Your task to perform on an android device: Turn on the flashlight Image 0: 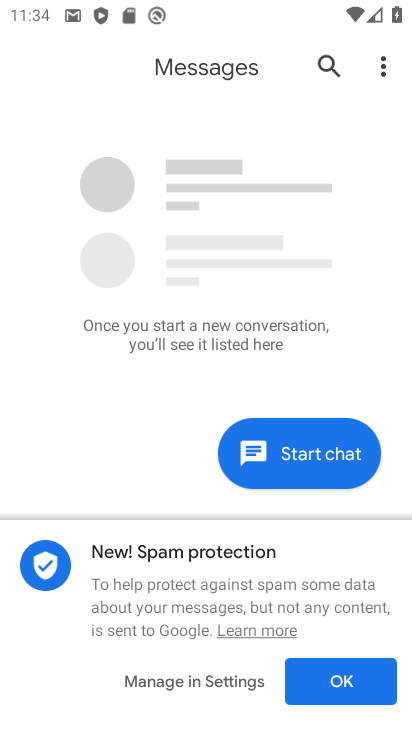
Step 0: press home button
Your task to perform on an android device: Turn on the flashlight Image 1: 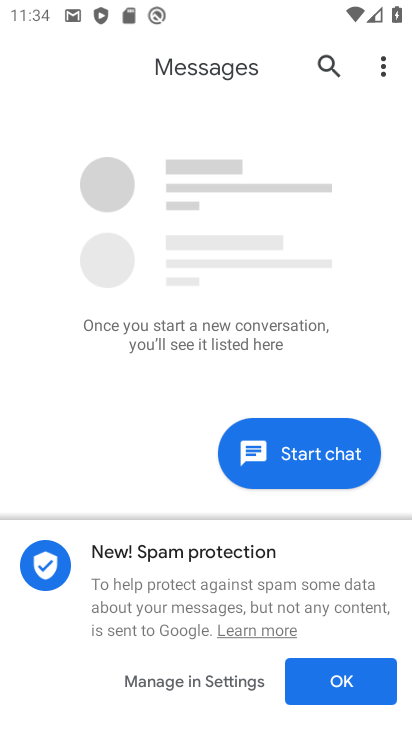
Step 1: press home button
Your task to perform on an android device: Turn on the flashlight Image 2: 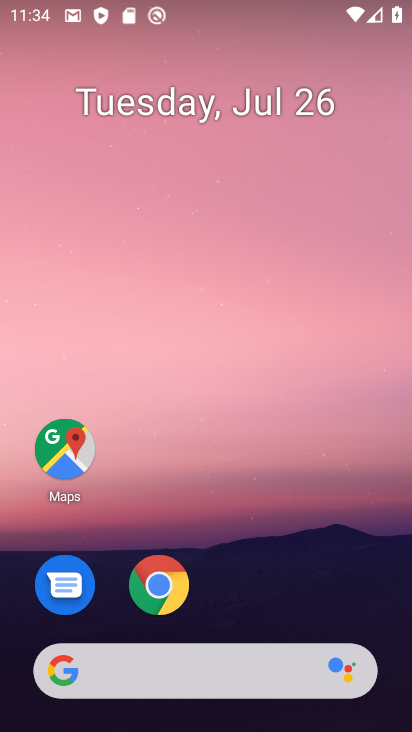
Step 2: drag from (236, 595) to (258, 21)
Your task to perform on an android device: Turn on the flashlight Image 3: 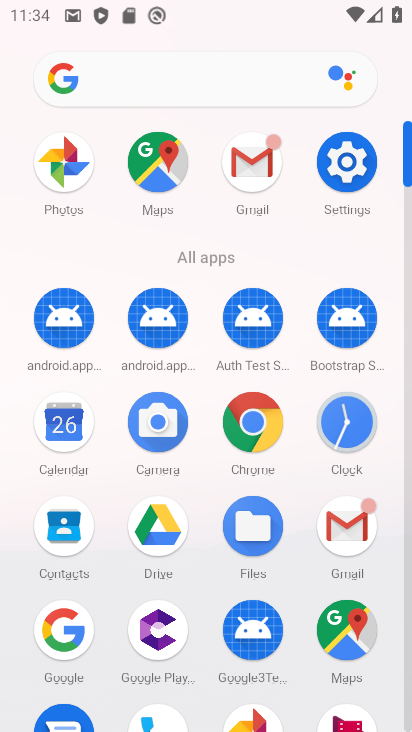
Step 3: click (346, 154)
Your task to perform on an android device: Turn on the flashlight Image 4: 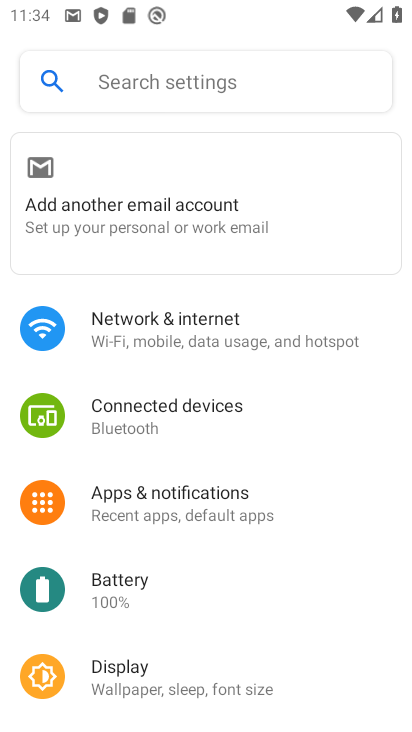
Step 4: press home button
Your task to perform on an android device: Turn on the flashlight Image 5: 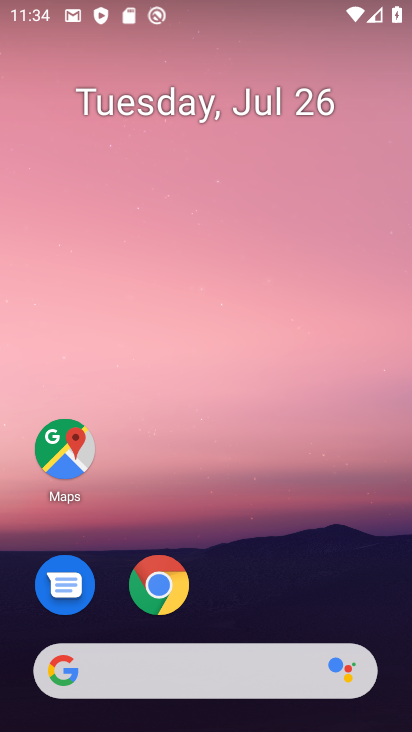
Step 5: click (156, 581)
Your task to perform on an android device: Turn on the flashlight Image 6: 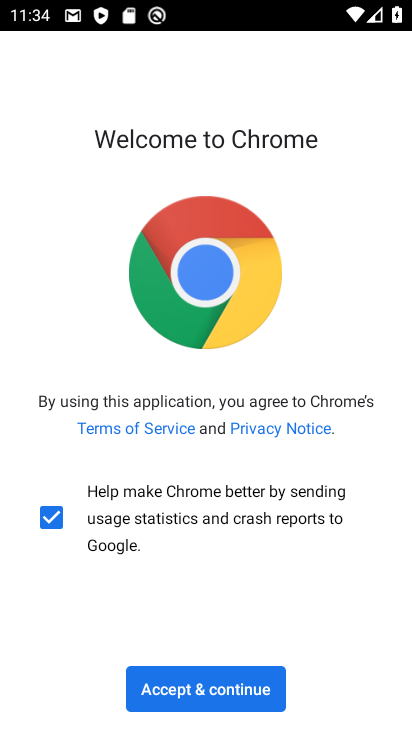
Step 6: click (206, 693)
Your task to perform on an android device: Turn on the flashlight Image 7: 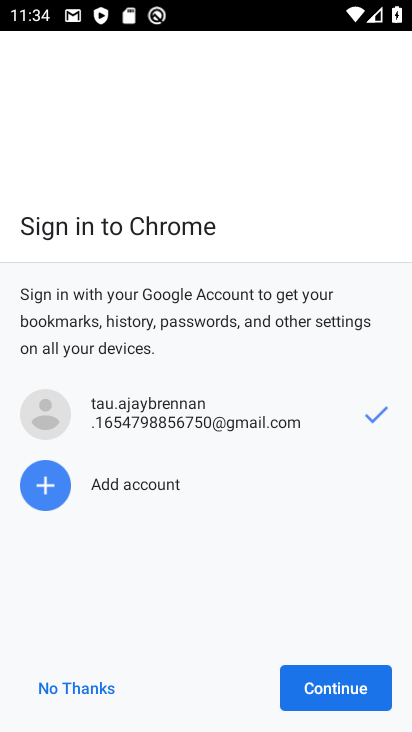
Step 7: click (318, 697)
Your task to perform on an android device: Turn on the flashlight Image 8: 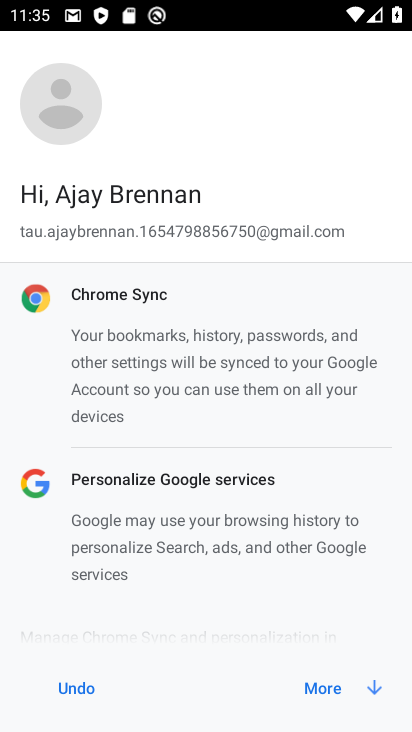
Step 8: click (323, 686)
Your task to perform on an android device: Turn on the flashlight Image 9: 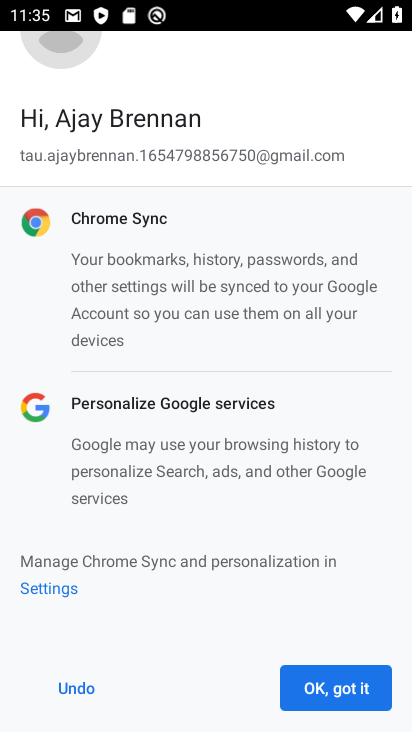
Step 9: click (323, 687)
Your task to perform on an android device: Turn on the flashlight Image 10: 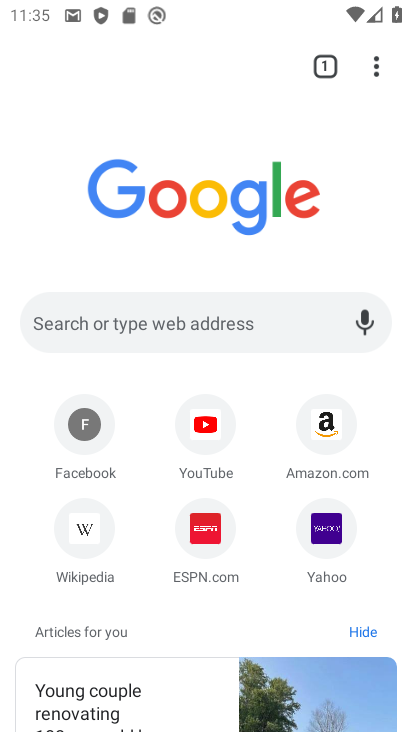
Step 10: press home button
Your task to perform on an android device: Turn on the flashlight Image 11: 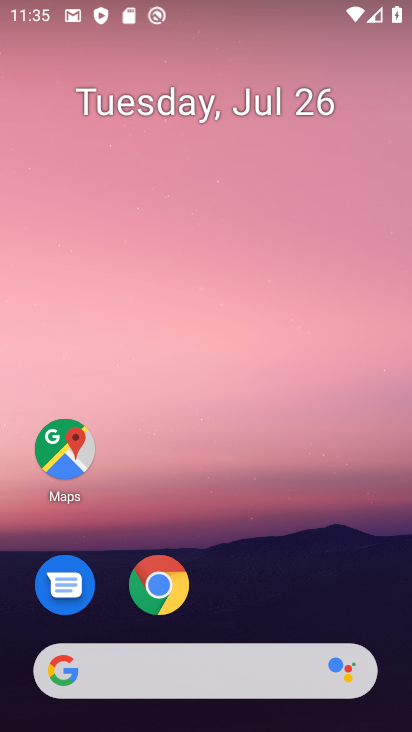
Step 11: drag from (255, 567) to (309, 14)
Your task to perform on an android device: Turn on the flashlight Image 12: 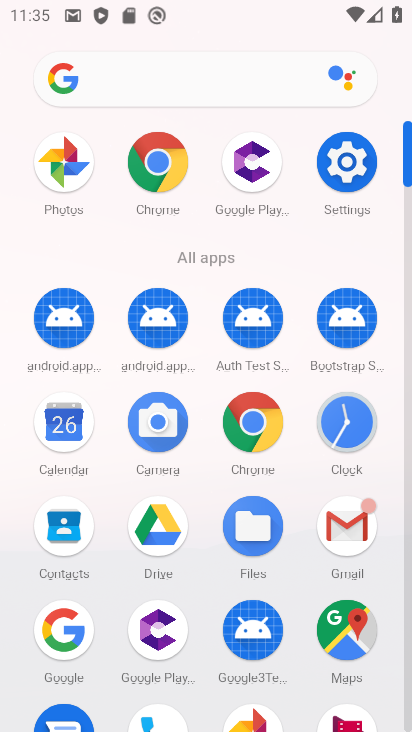
Step 12: click (58, 167)
Your task to perform on an android device: Turn on the flashlight Image 13: 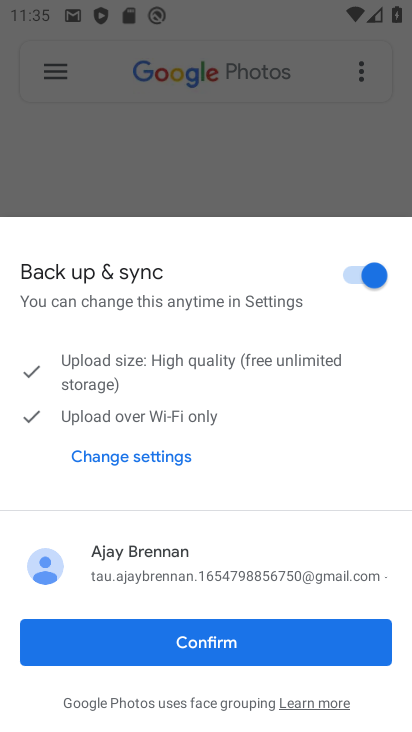
Step 13: click (248, 657)
Your task to perform on an android device: Turn on the flashlight Image 14: 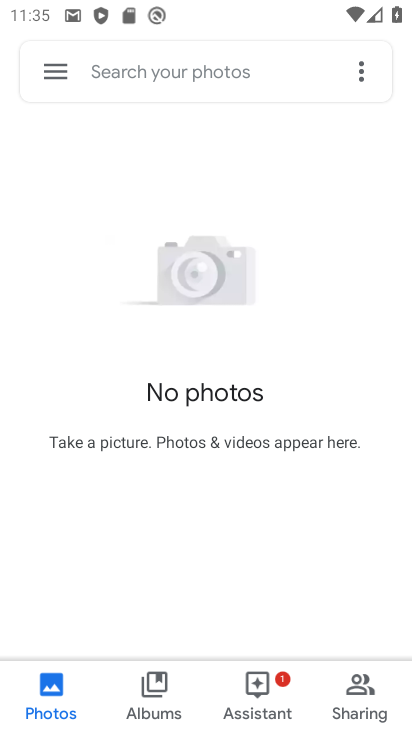
Step 14: press home button
Your task to perform on an android device: Turn on the flashlight Image 15: 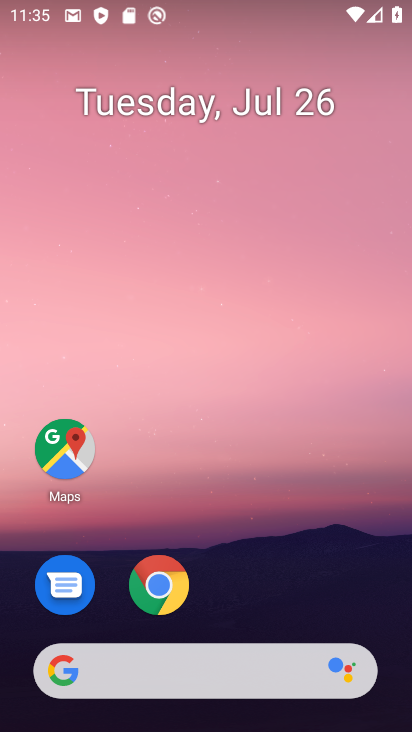
Step 15: drag from (337, 556) to (358, 95)
Your task to perform on an android device: Turn on the flashlight Image 16: 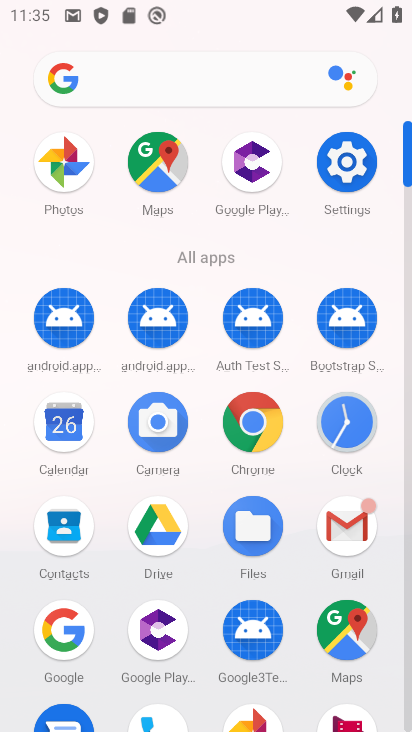
Step 16: click (343, 525)
Your task to perform on an android device: Turn on the flashlight Image 17: 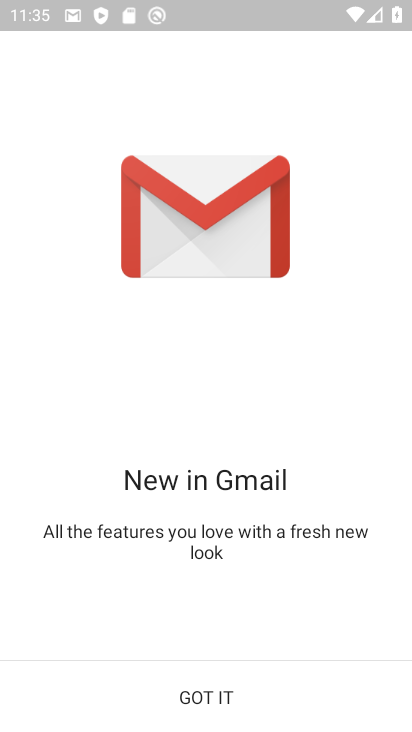
Step 17: click (230, 685)
Your task to perform on an android device: Turn on the flashlight Image 18: 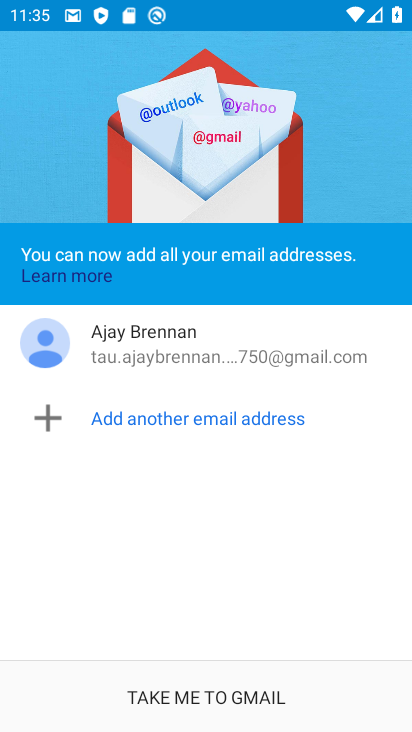
Step 18: click (231, 699)
Your task to perform on an android device: Turn on the flashlight Image 19: 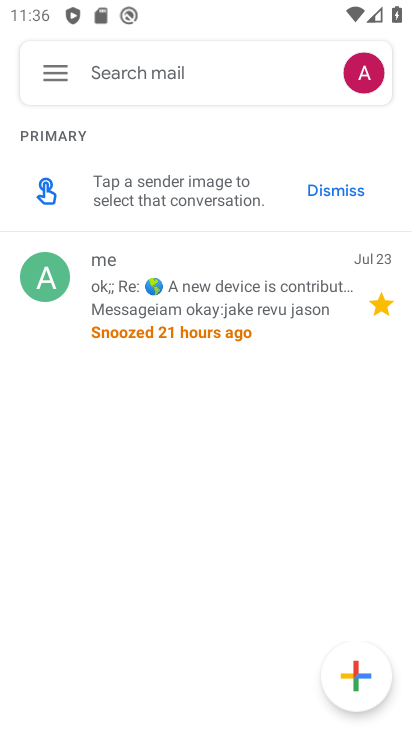
Step 19: press home button
Your task to perform on an android device: Turn on the flashlight Image 20: 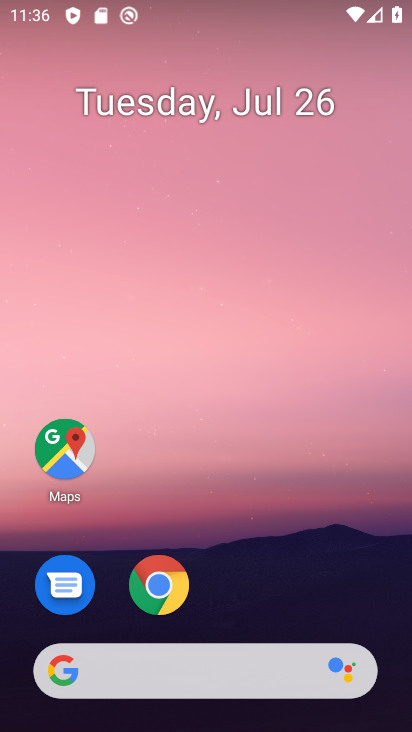
Step 20: drag from (260, 578) to (334, 73)
Your task to perform on an android device: Turn on the flashlight Image 21: 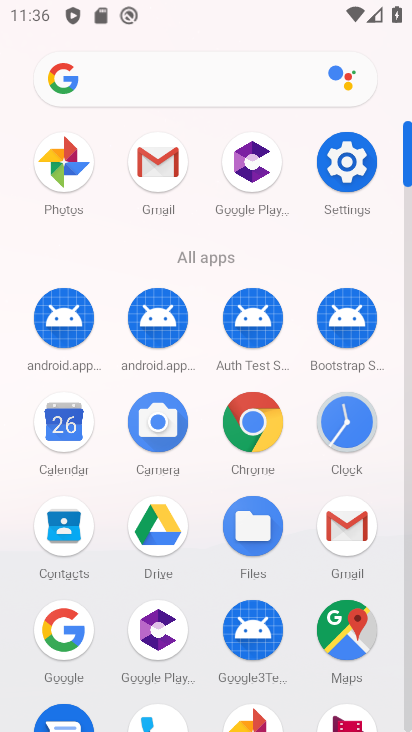
Step 21: click (337, 172)
Your task to perform on an android device: Turn on the flashlight Image 22: 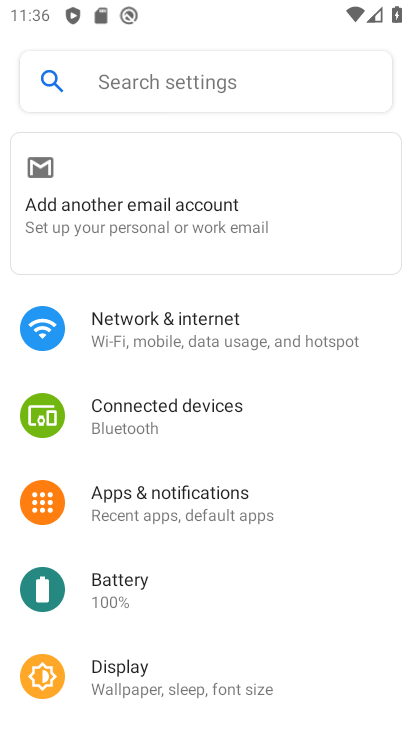
Step 22: click (259, 79)
Your task to perform on an android device: Turn on the flashlight Image 23: 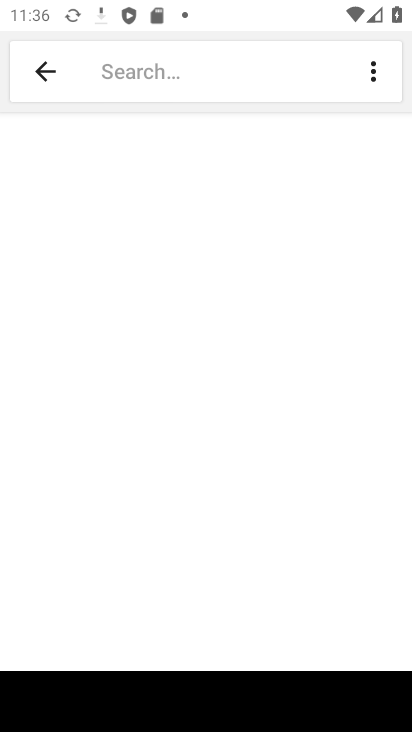
Step 23: type "Flashlight"
Your task to perform on an android device: Turn on the flashlight Image 24: 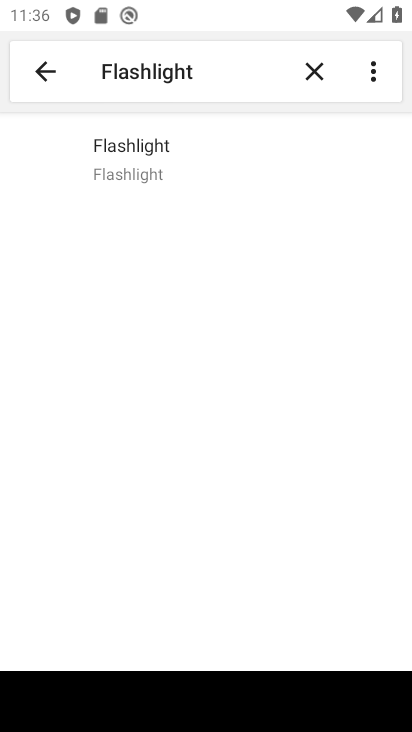
Step 24: click (133, 157)
Your task to perform on an android device: Turn on the flashlight Image 25: 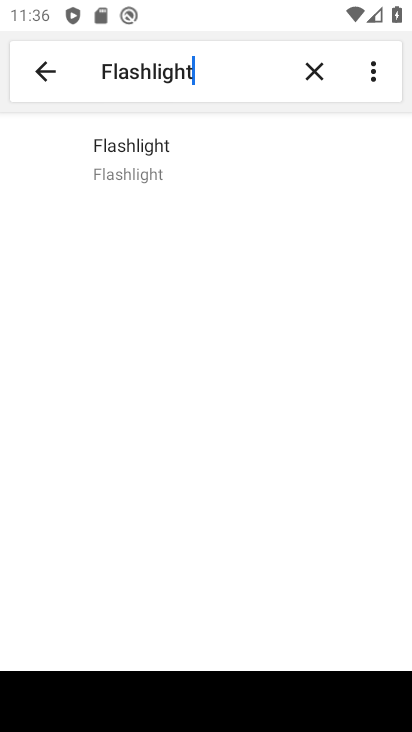
Step 25: click (133, 159)
Your task to perform on an android device: Turn on the flashlight Image 26: 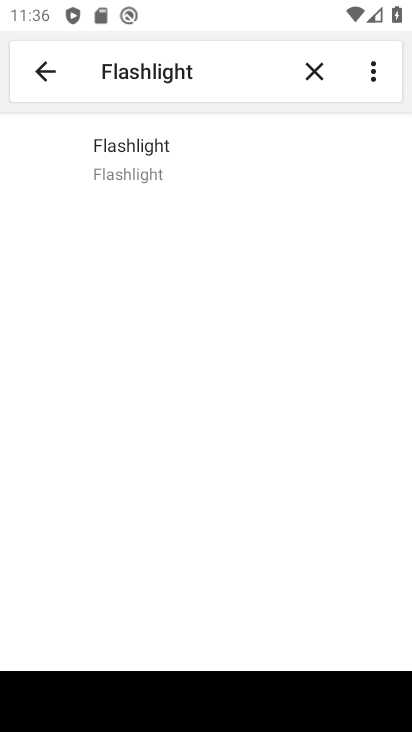
Step 26: task complete